Your task to perform on an android device: toggle notification dots Image 0: 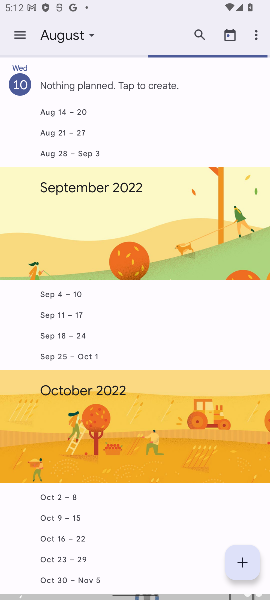
Step 0: press home button
Your task to perform on an android device: toggle notification dots Image 1: 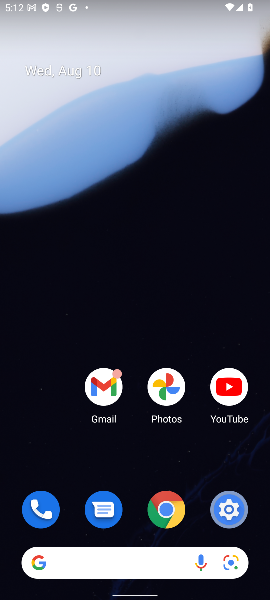
Step 1: drag from (132, 466) to (172, 142)
Your task to perform on an android device: toggle notification dots Image 2: 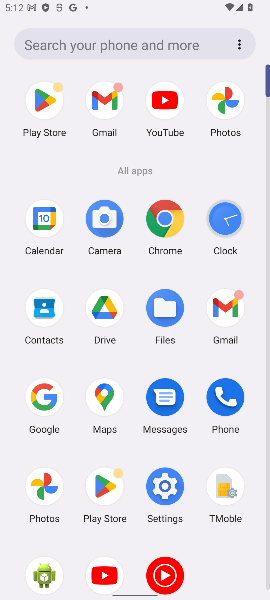
Step 2: click (172, 482)
Your task to perform on an android device: toggle notification dots Image 3: 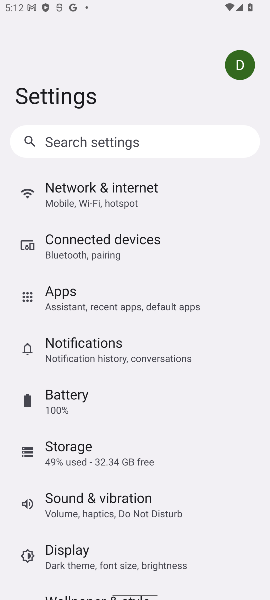
Step 3: click (88, 339)
Your task to perform on an android device: toggle notification dots Image 4: 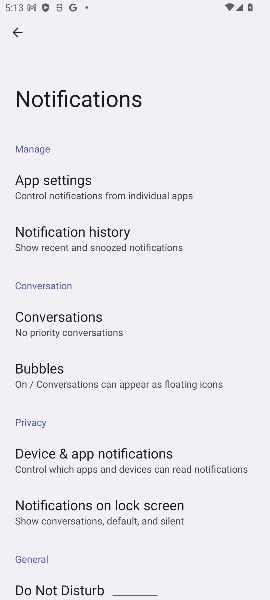
Step 4: drag from (122, 537) to (190, 196)
Your task to perform on an android device: toggle notification dots Image 5: 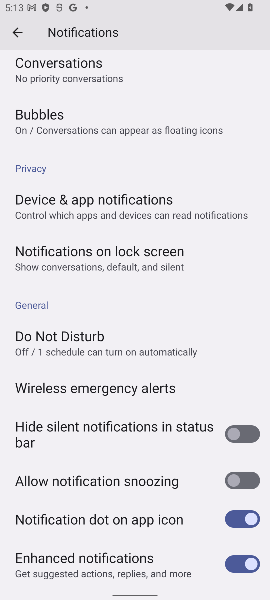
Step 5: click (248, 519)
Your task to perform on an android device: toggle notification dots Image 6: 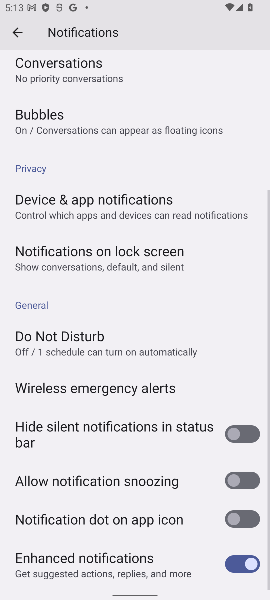
Step 6: task complete